Your task to perform on an android device: Go to sound settings Image 0: 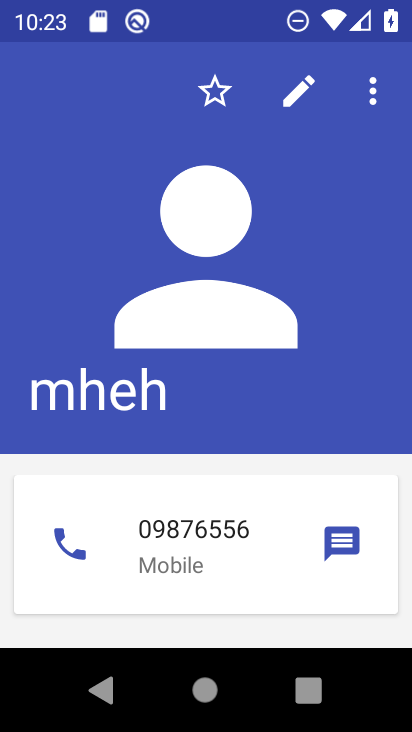
Step 0: press home button
Your task to perform on an android device: Go to sound settings Image 1: 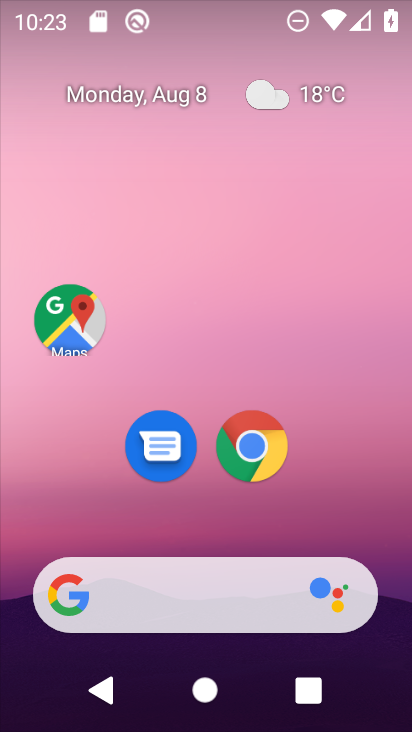
Step 1: drag from (397, 619) to (366, 153)
Your task to perform on an android device: Go to sound settings Image 2: 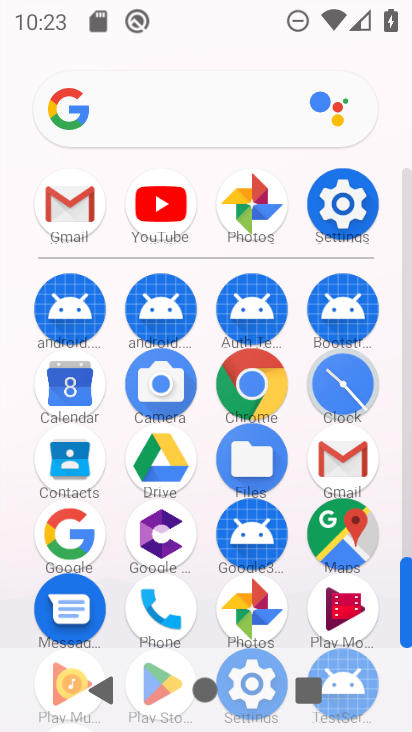
Step 2: click (407, 525)
Your task to perform on an android device: Go to sound settings Image 3: 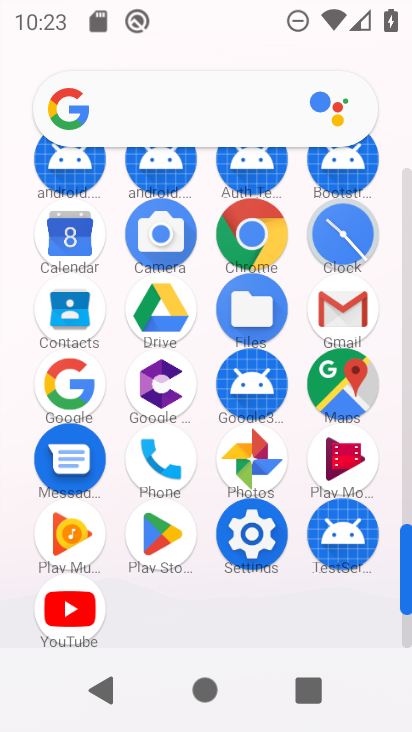
Step 3: click (252, 533)
Your task to perform on an android device: Go to sound settings Image 4: 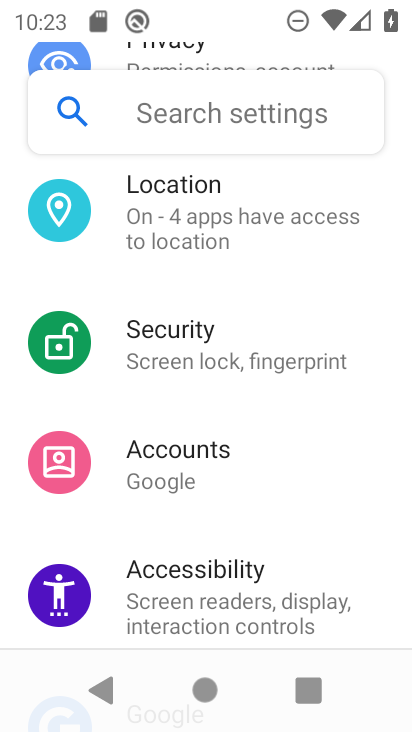
Step 4: drag from (324, 222) to (300, 495)
Your task to perform on an android device: Go to sound settings Image 5: 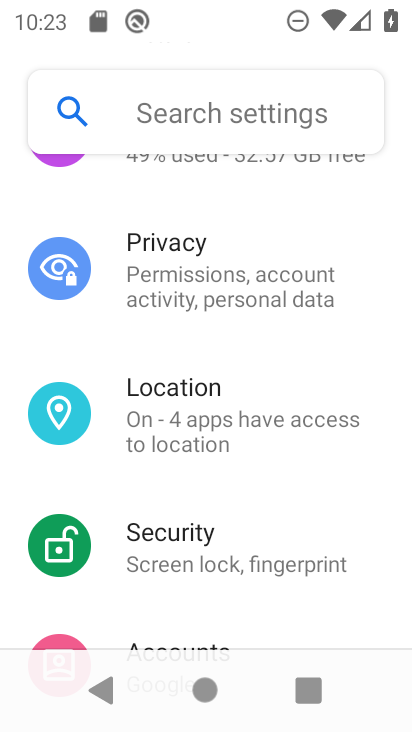
Step 5: drag from (314, 255) to (295, 508)
Your task to perform on an android device: Go to sound settings Image 6: 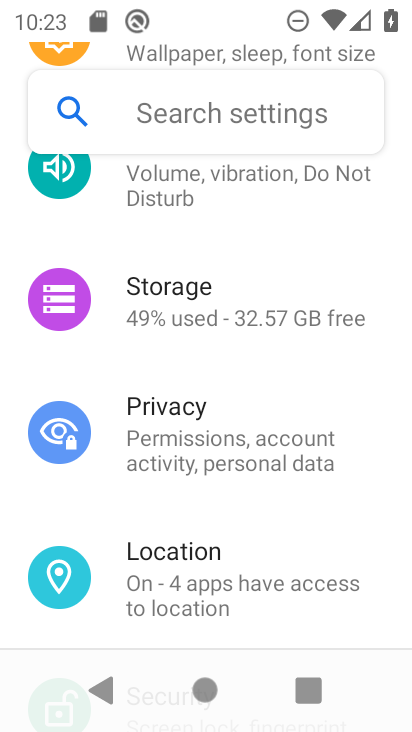
Step 6: drag from (301, 316) to (254, 612)
Your task to perform on an android device: Go to sound settings Image 7: 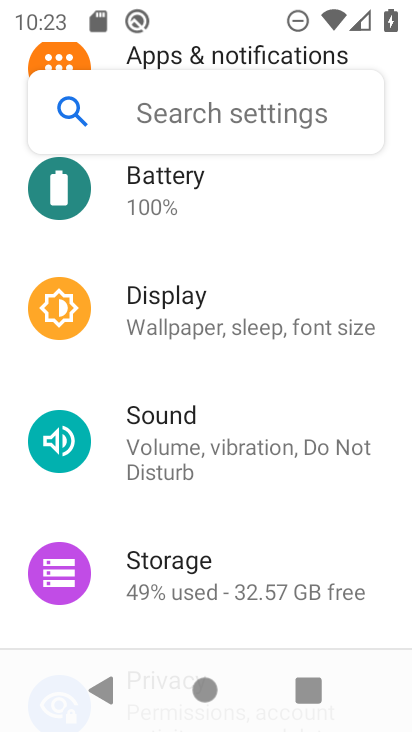
Step 7: click (181, 433)
Your task to perform on an android device: Go to sound settings Image 8: 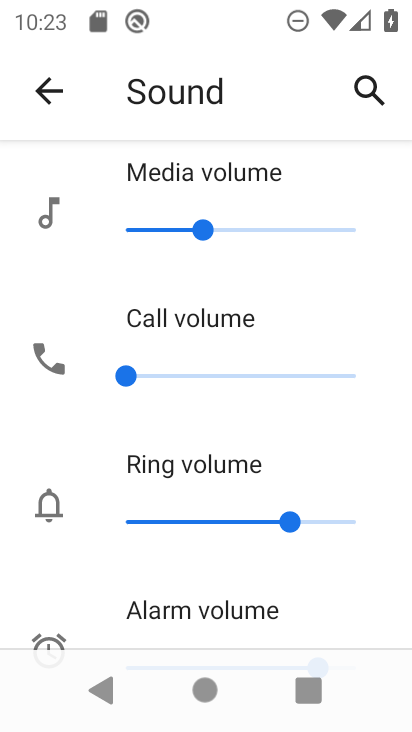
Step 8: task complete